Your task to perform on an android device: see tabs open on other devices in the chrome app Image 0: 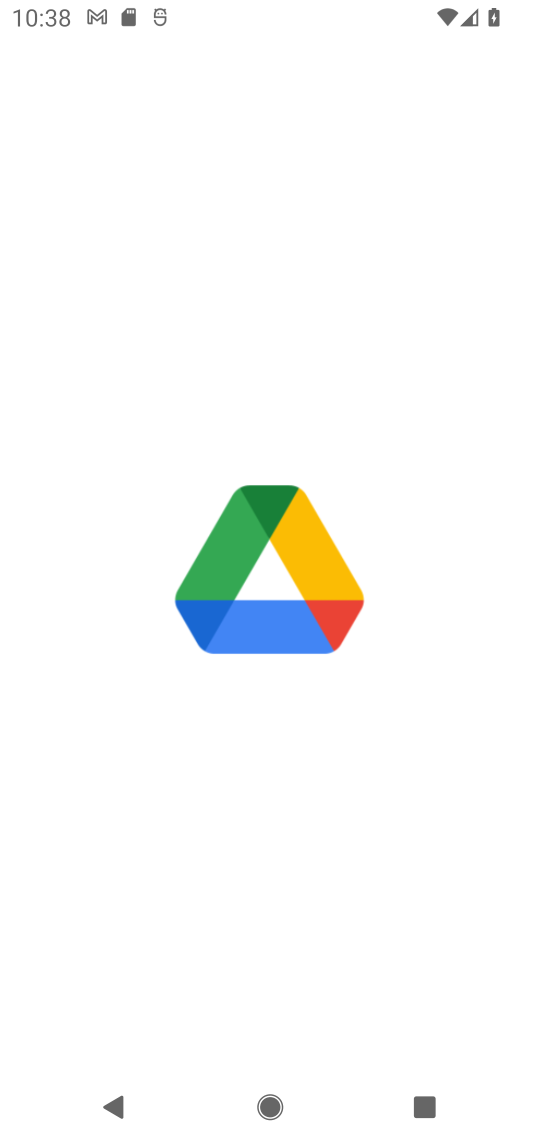
Step 0: press home button
Your task to perform on an android device: see tabs open on other devices in the chrome app Image 1: 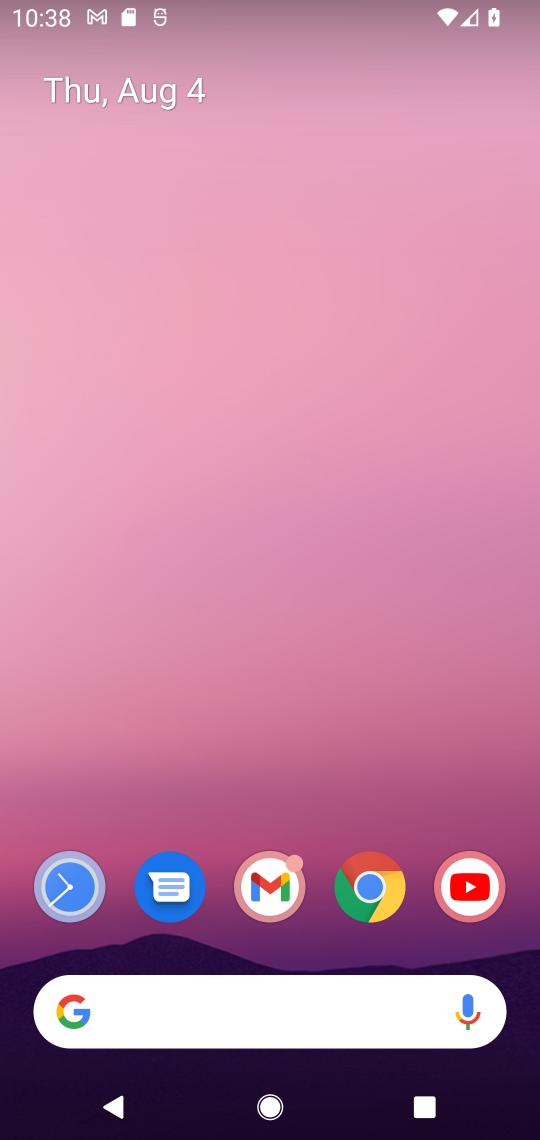
Step 1: click (354, 897)
Your task to perform on an android device: see tabs open on other devices in the chrome app Image 2: 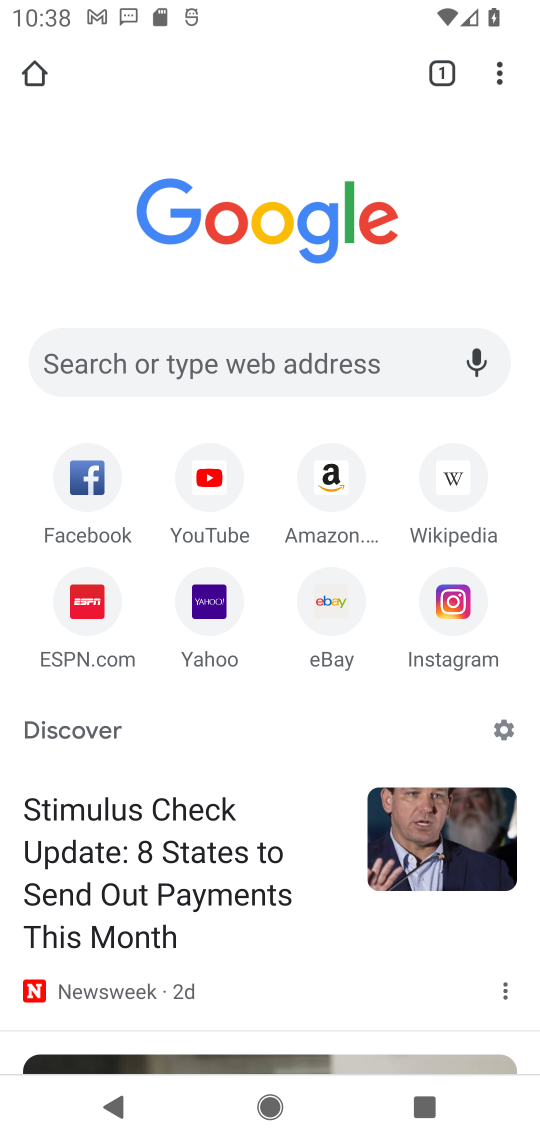
Step 2: click (505, 68)
Your task to perform on an android device: see tabs open on other devices in the chrome app Image 3: 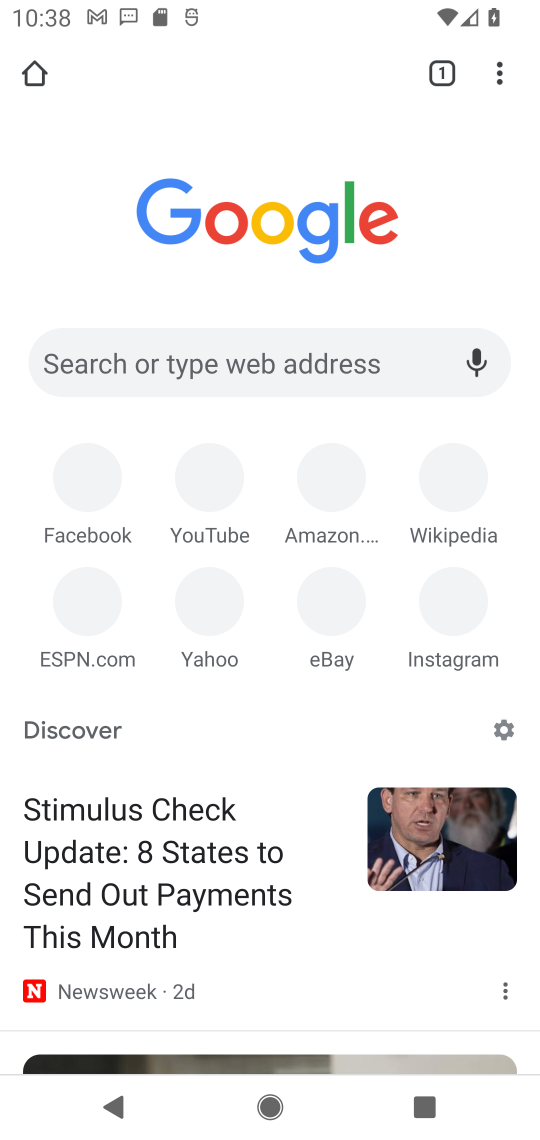
Step 3: click (497, 70)
Your task to perform on an android device: see tabs open on other devices in the chrome app Image 4: 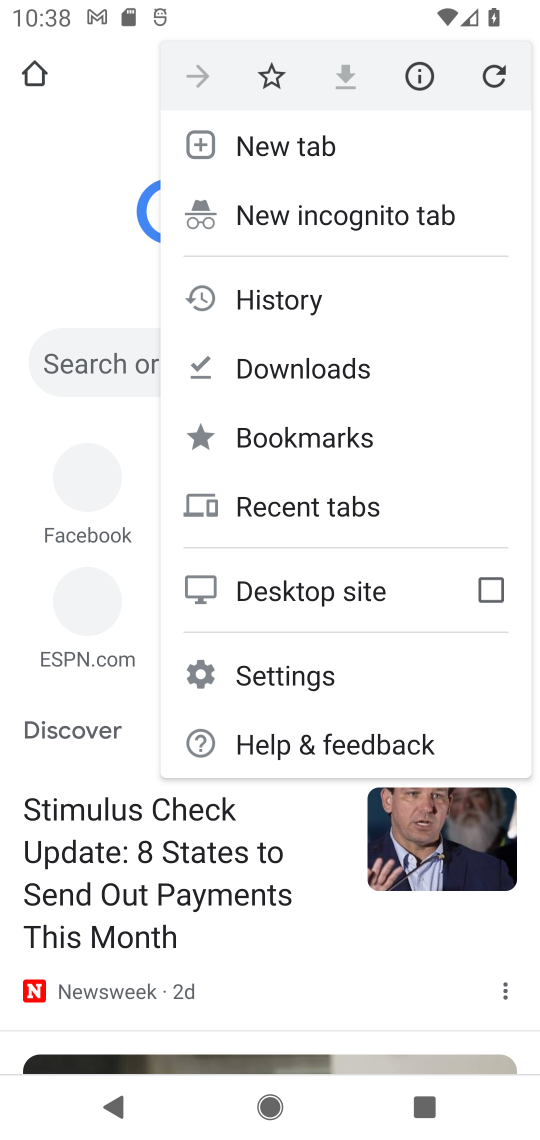
Step 4: click (327, 514)
Your task to perform on an android device: see tabs open on other devices in the chrome app Image 5: 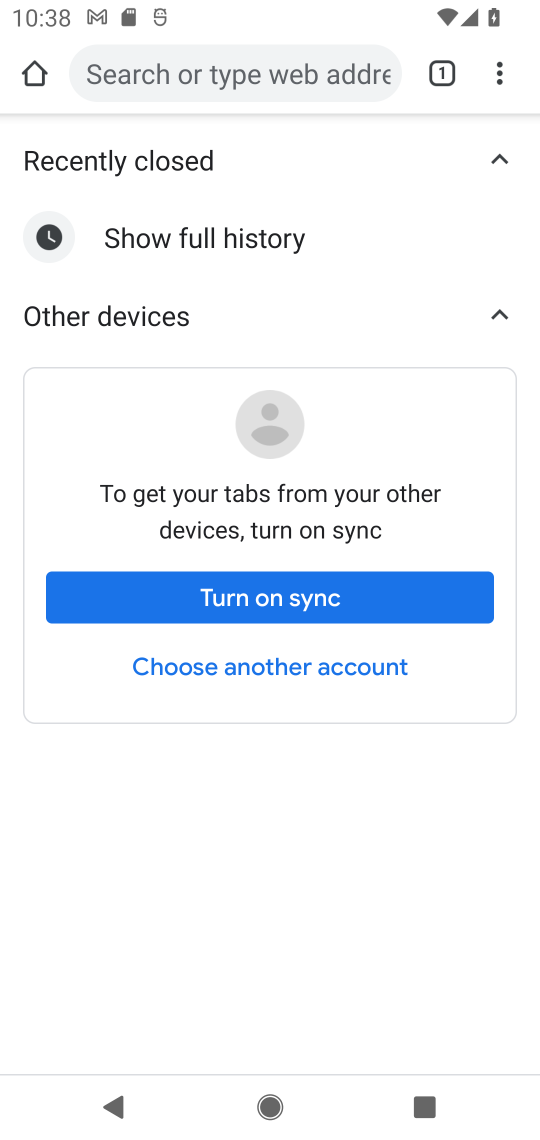
Step 5: task complete